Your task to perform on an android device: turn on the 24-hour format for clock Image 0: 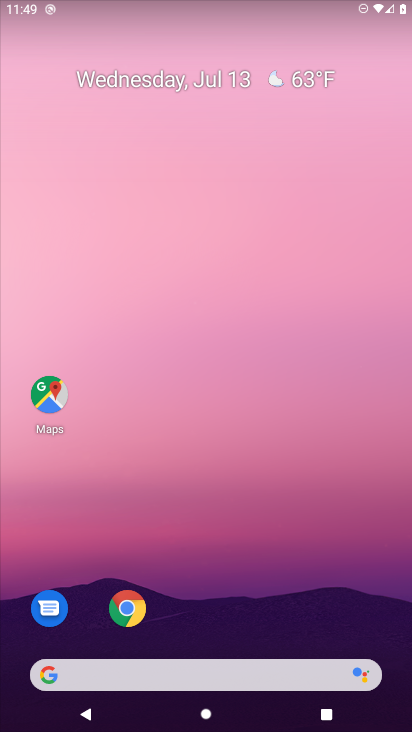
Step 0: press home button
Your task to perform on an android device: turn on the 24-hour format for clock Image 1: 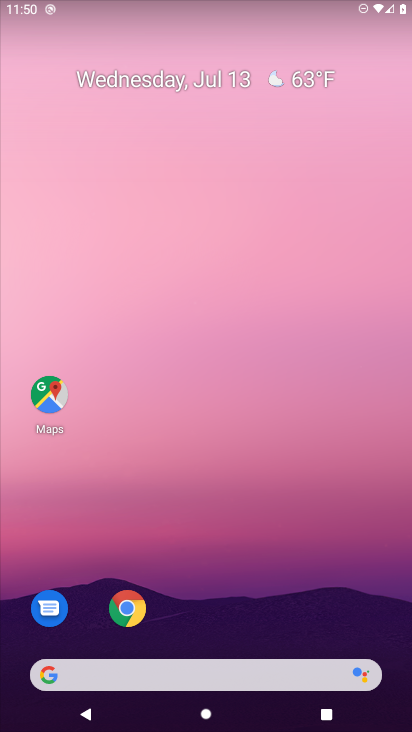
Step 1: drag from (235, 626) to (247, 181)
Your task to perform on an android device: turn on the 24-hour format for clock Image 2: 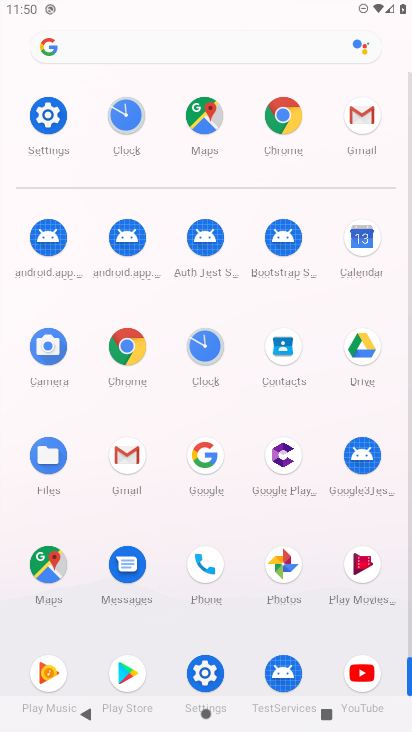
Step 2: click (52, 120)
Your task to perform on an android device: turn on the 24-hour format for clock Image 3: 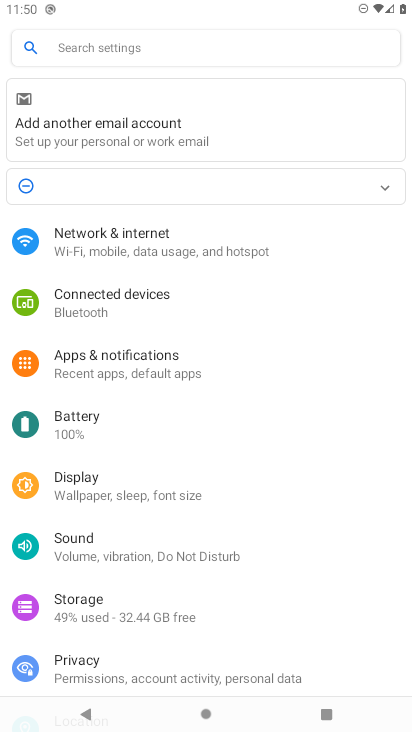
Step 3: drag from (313, 593) to (278, 158)
Your task to perform on an android device: turn on the 24-hour format for clock Image 4: 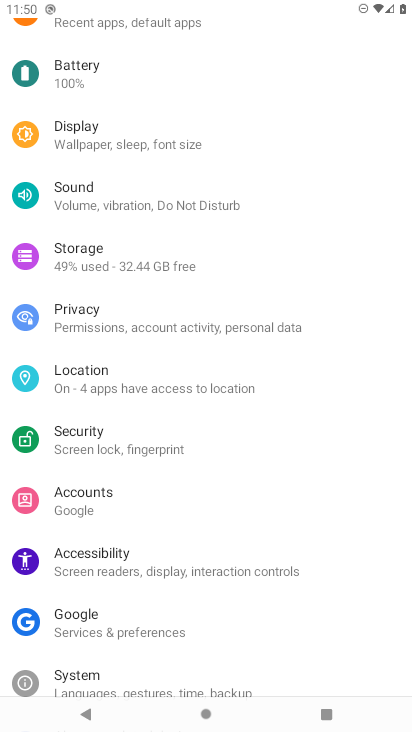
Step 4: click (85, 685)
Your task to perform on an android device: turn on the 24-hour format for clock Image 5: 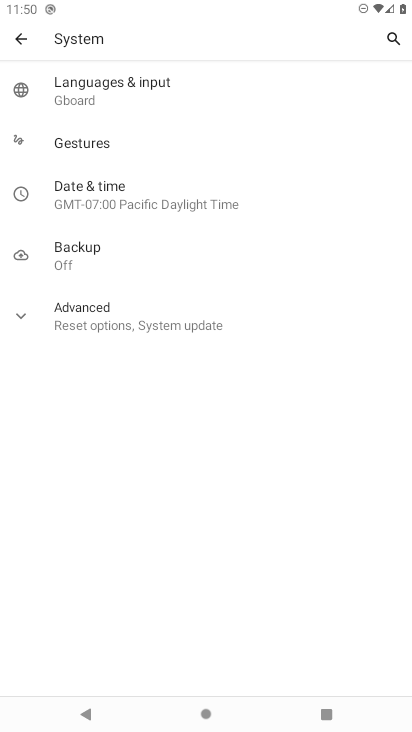
Step 5: click (100, 186)
Your task to perform on an android device: turn on the 24-hour format for clock Image 6: 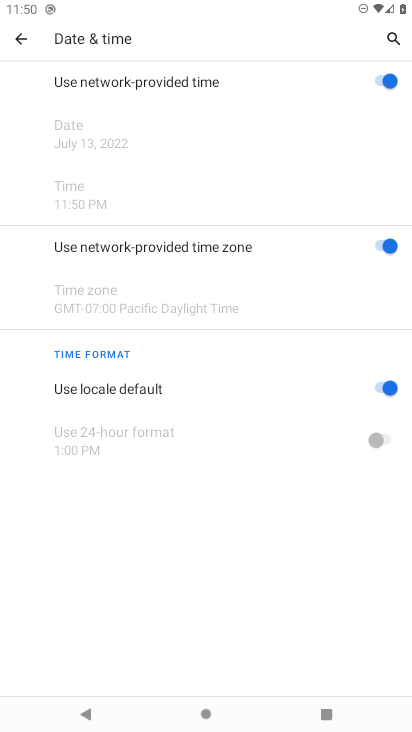
Step 6: click (394, 388)
Your task to perform on an android device: turn on the 24-hour format for clock Image 7: 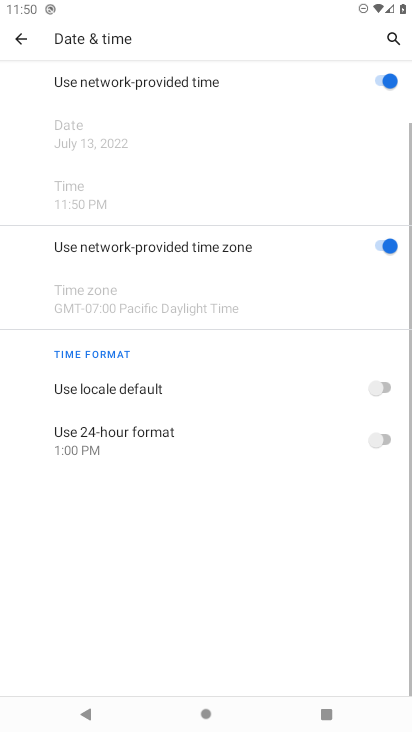
Step 7: click (373, 443)
Your task to perform on an android device: turn on the 24-hour format for clock Image 8: 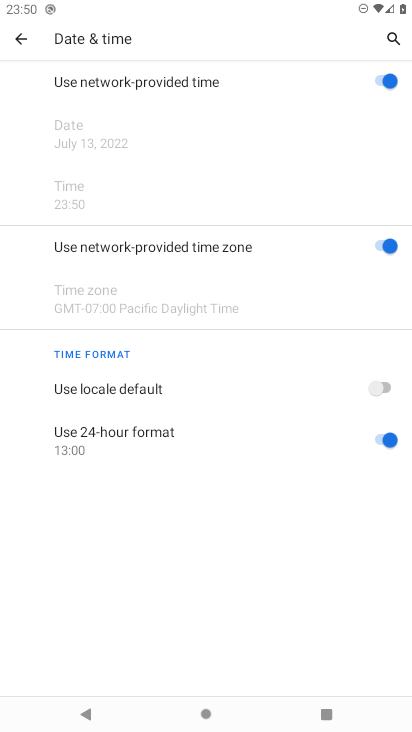
Step 8: task complete